Your task to perform on an android device: choose inbox layout in the gmail app Image 0: 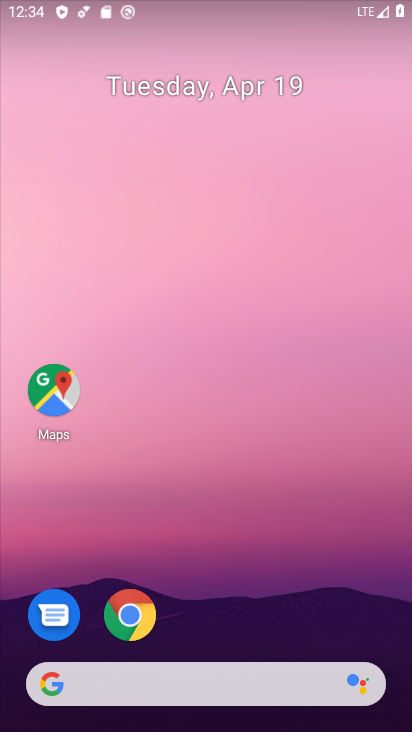
Step 0: drag from (305, 574) to (258, 63)
Your task to perform on an android device: choose inbox layout in the gmail app Image 1: 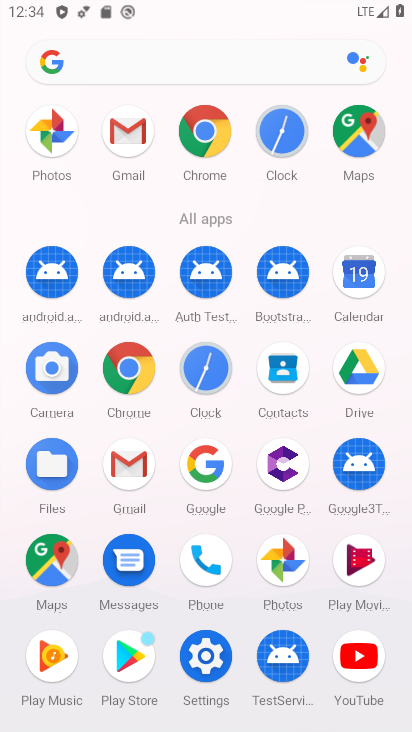
Step 1: click (125, 471)
Your task to perform on an android device: choose inbox layout in the gmail app Image 2: 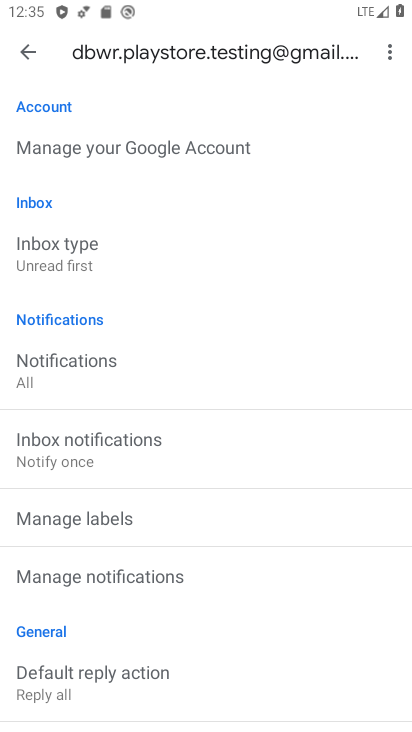
Step 2: click (63, 243)
Your task to perform on an android device: choose inbox layout in the gmail app Image 3: 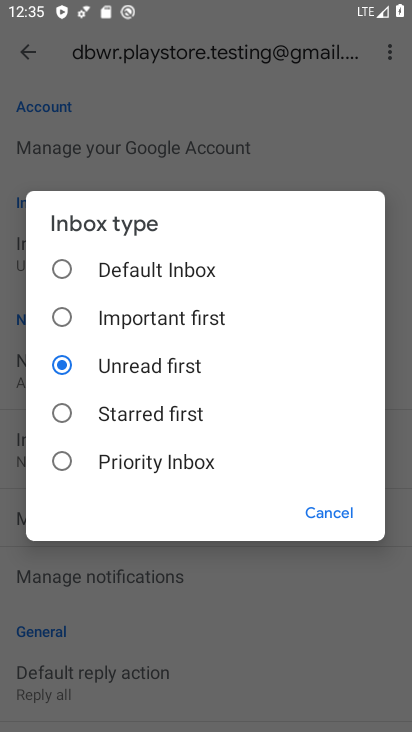
Step 3: click (146, 318)
Your task to perform on an android device: choose inbox layout in the gmail app Image 4: 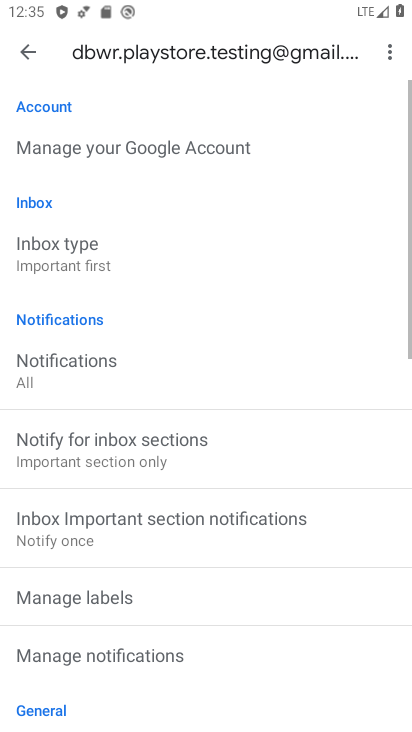
Step 4: task complete